Your task to perform on an android device: open a bookmark in the chrome app Image 0: 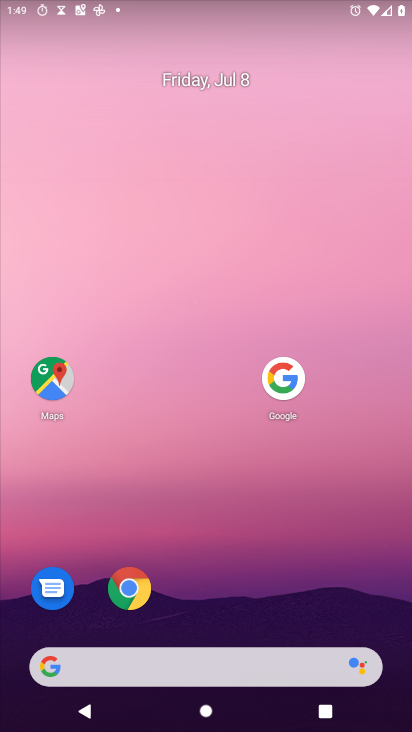
Step 0: click (123, 583)
Your task to perform on an android device: open a bookmark in the chrome app Image 1: 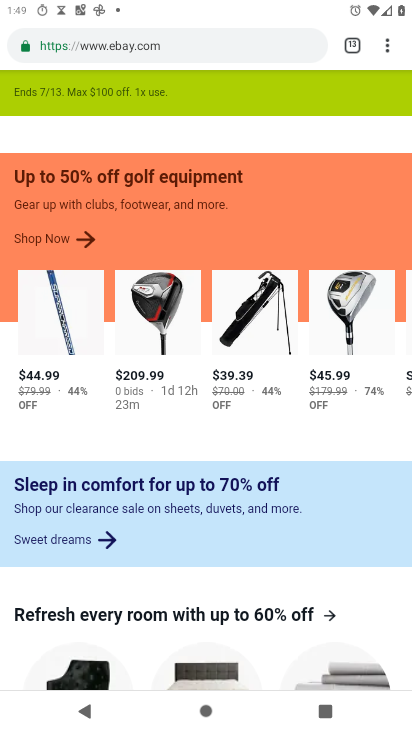
Step 1: task complete